Your task to perform on an android device: check out phone information Image 0: 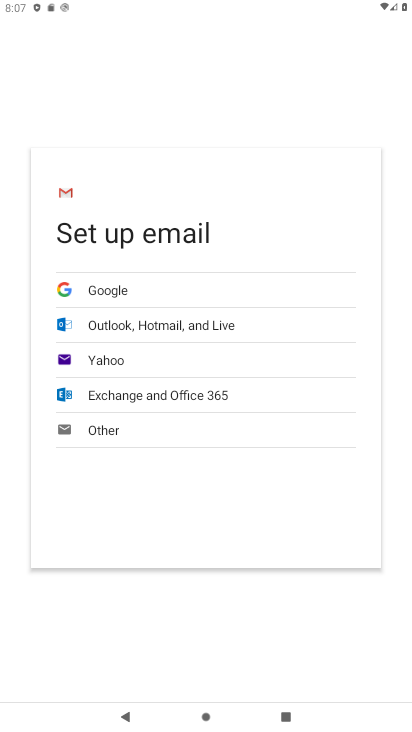
Step 0: press home button
Your task to perform on an android device: check out phone information Image 1: 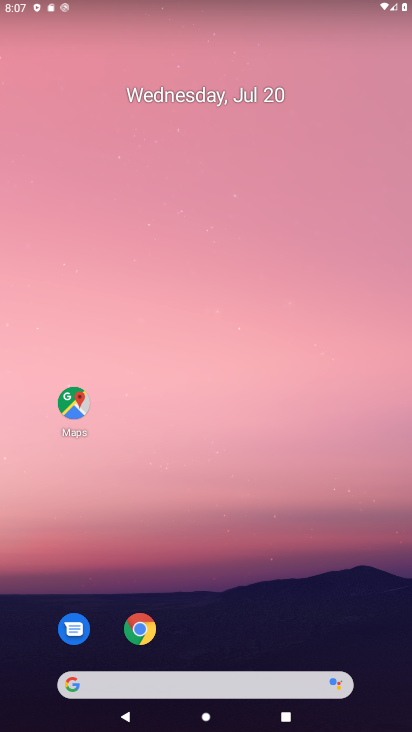
Step 1: drag from (192, 638) to (201, 209)
Your task to perform on an android device: check out phone information Image 2: 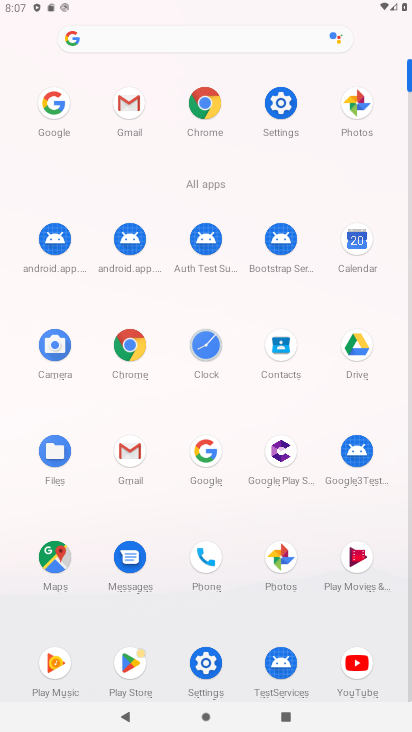
Step 2: click (279, 124)
Your task to perform on an android device: check out phone information Image 3: 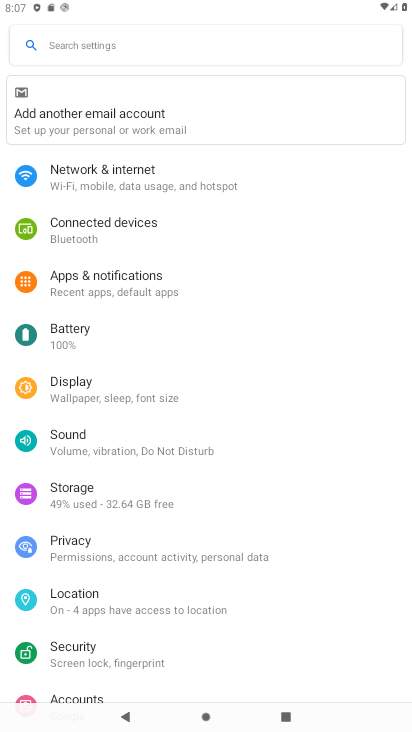
Step 3: task complete